Your task to perform on an android device: Find coffee shops on Maps Image 0: 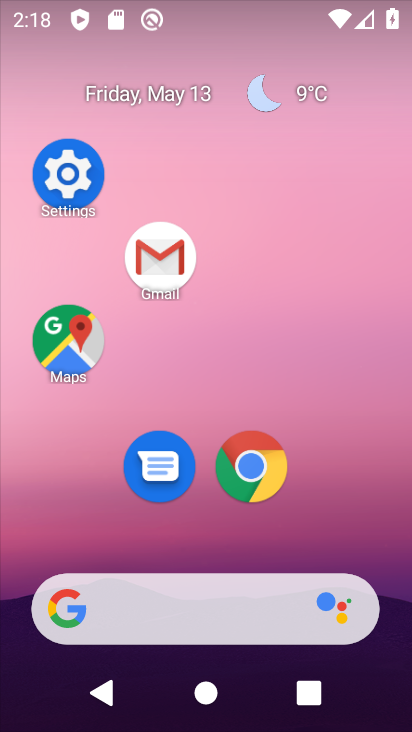
Step 0: click (72, 318)
Your task to perform on an android device: Find coffee shops on Maps Image 1: 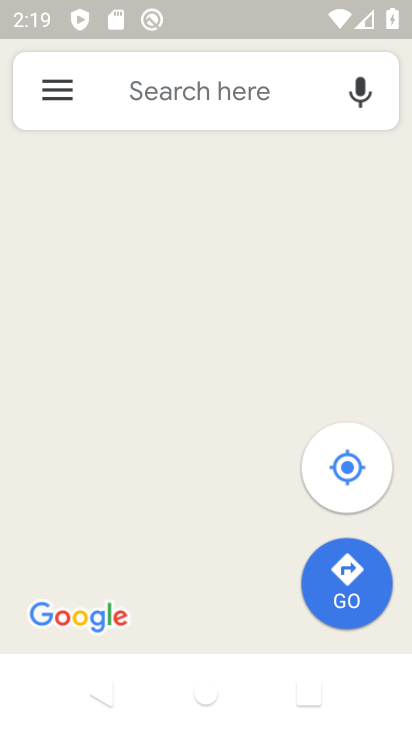
Step 1: click (253, 76)
Your task to perform on an android device: Find coffee shops on Maps Image 2: 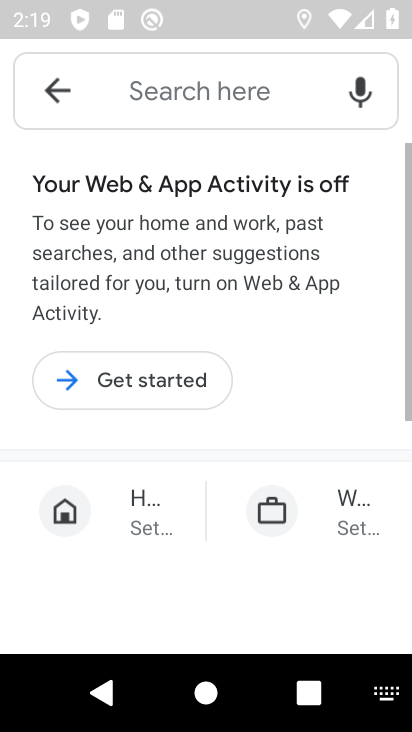
Step 2: type "coffee shops"
Your task to perform on an android device: Find coffee shops on Maps Image 3: 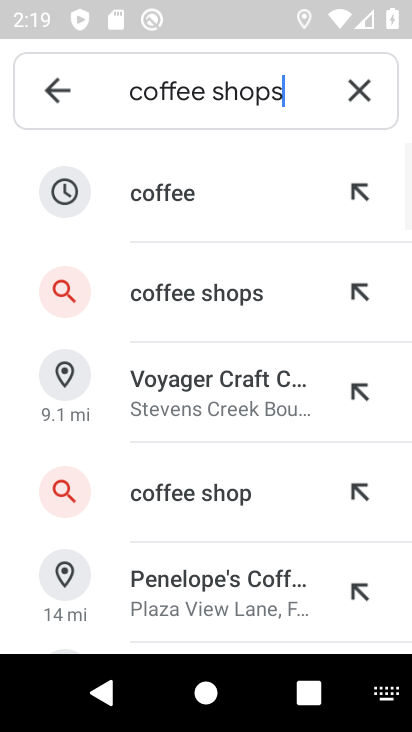
Step 3: click (227, 298)
Your task to perform on an android device: Find coffee shops on Maps Image 4: 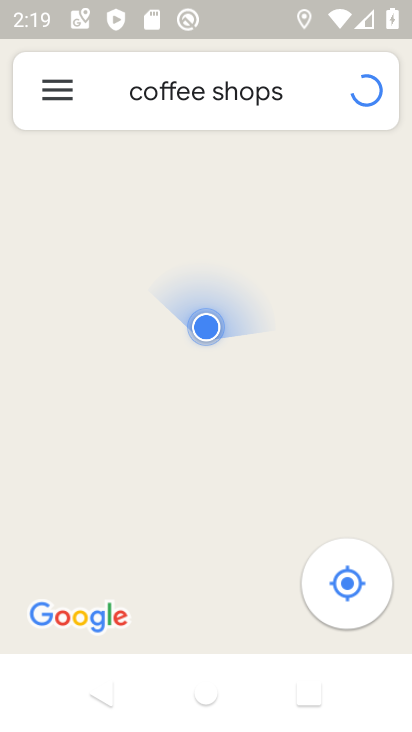
Step 4: task complete